Your task to perform on an android device: open chrome privacy settings Image 0: 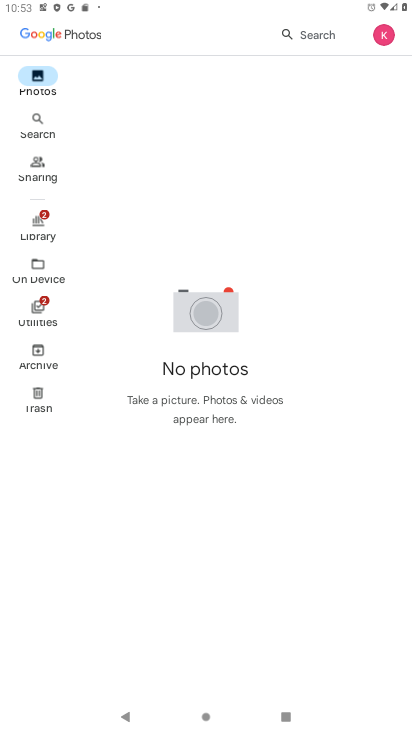
Step 0: press home button
Your task to perform on an android device: open chrome privacy settings Image 1: 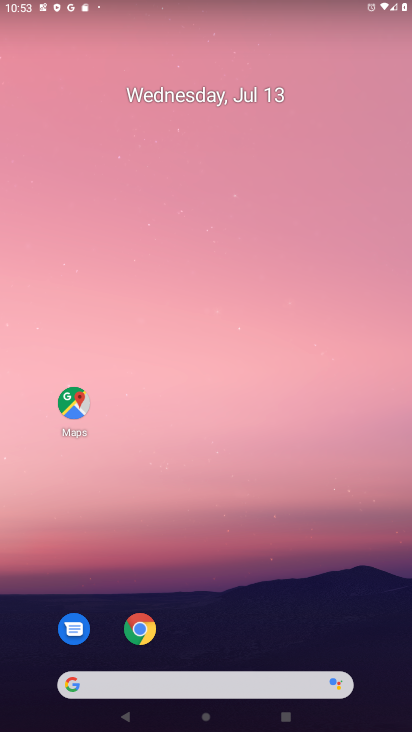
Step 1: drag from (285, 635) to (254, 222)
Your task to perform on an android device: open chrome privacy settings Image 2: 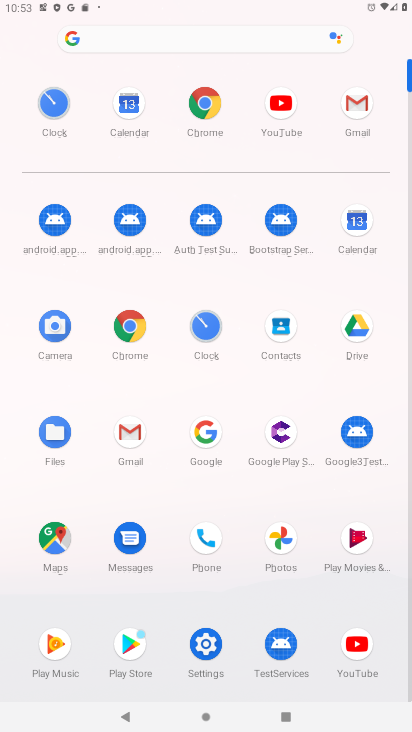
Step 2: click (208, 116)
Your task to perform on an android device: open chrome privacy settings Image 3: 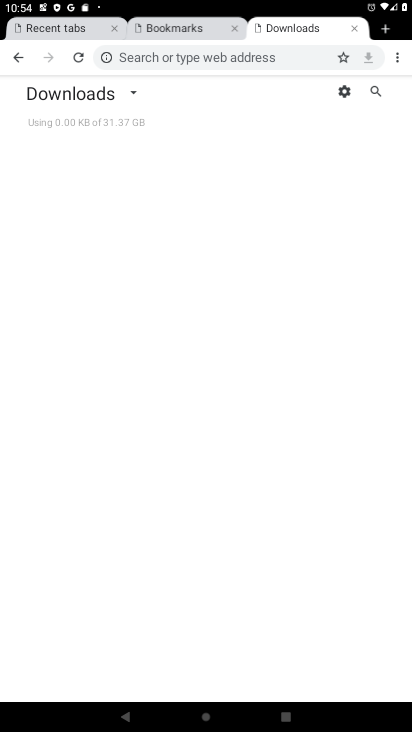
Step 3: click (400, 63)
Your task to perform on an android device: open chrome privacy settings Image 4: 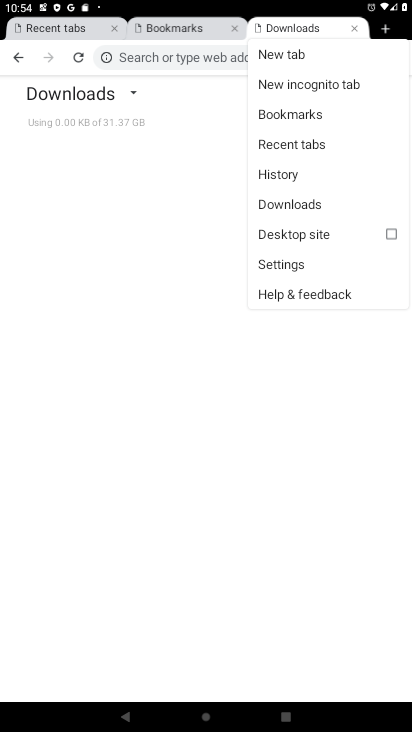
Step 4: click (304, 261)
Your task to perform on an android device: open chrome privacy settings Image 5: 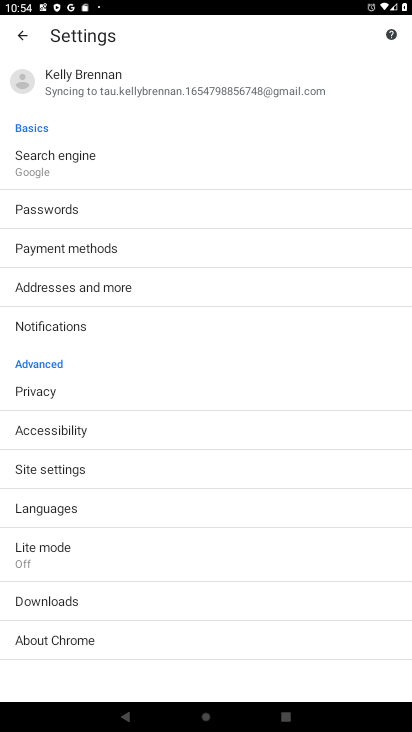
Step 5: click (130, 395)
Your task to perform on an android device: open chrome privacy settings Image 6: 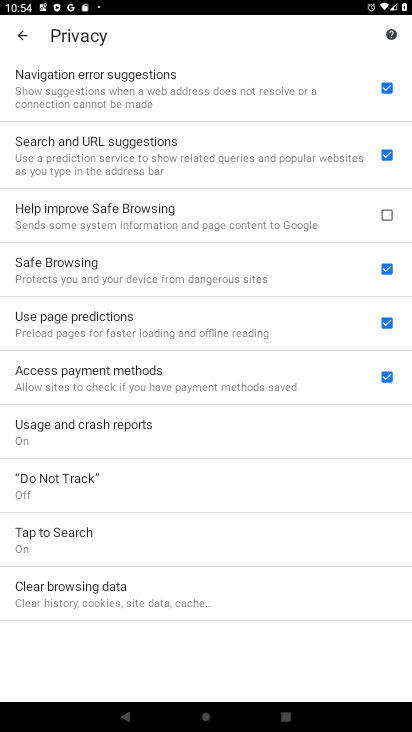
Step 6: task complete